Your task to perform on an android device: find snoozed emails in the gmail app Image 0: 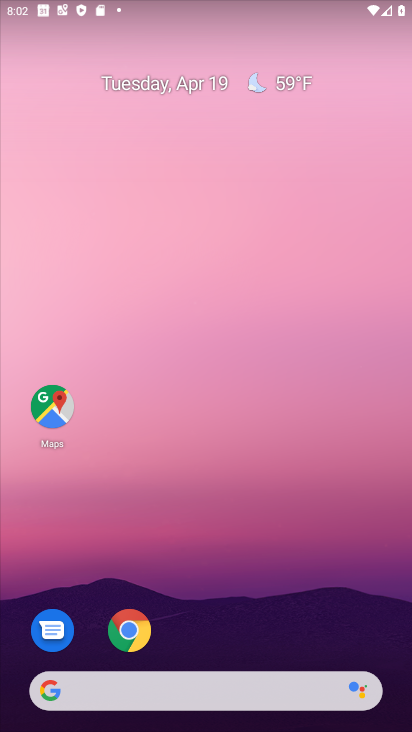
Step 0: drag from (188, 587) to (191, 50)
Your task to perform on an android device: find snoozed emails in the gmail app Image 1: 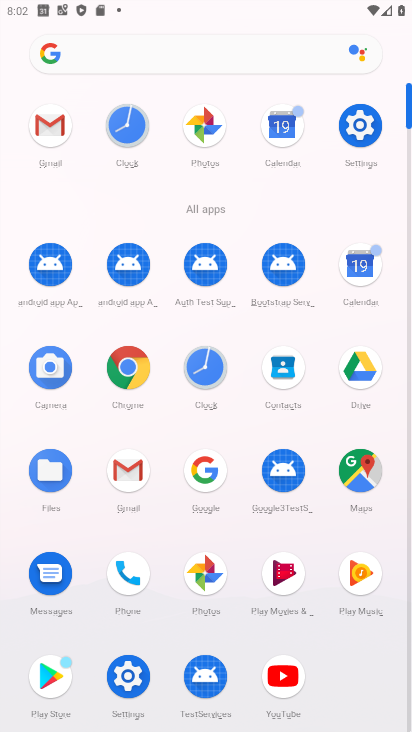
Step 1: click (47, 124)
Your task to perform on an android device: find snoozed emails in the gmail app Image 2: 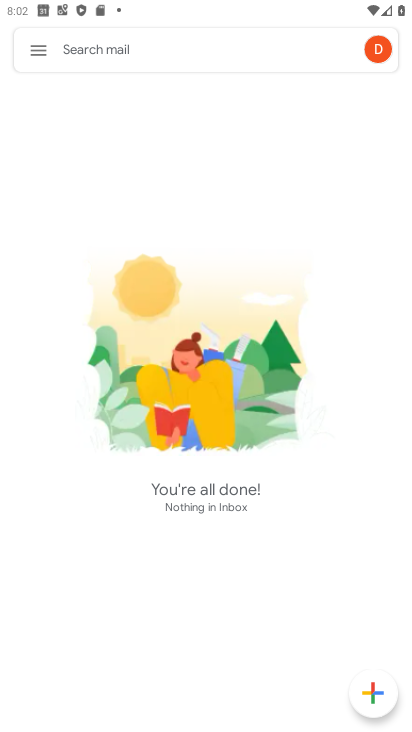
Step 2: click (38, 62)
Your task to perform on an android device: find snoozed emails in the gmail app Image 3: 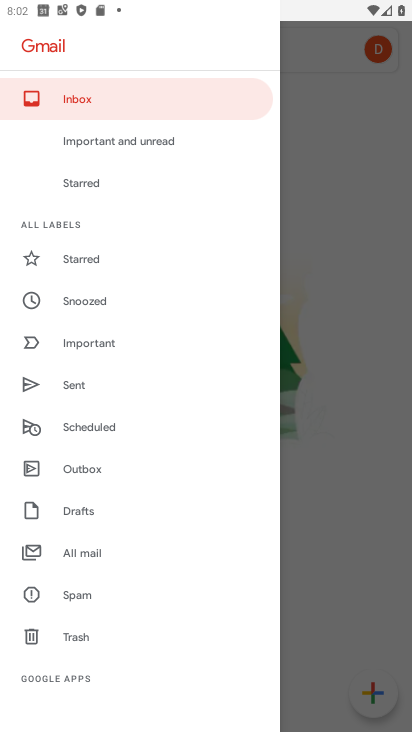
Step 3: click (113, 300)
Your task to perform on an android device: find snoozed emails in the gmail app Image 4: 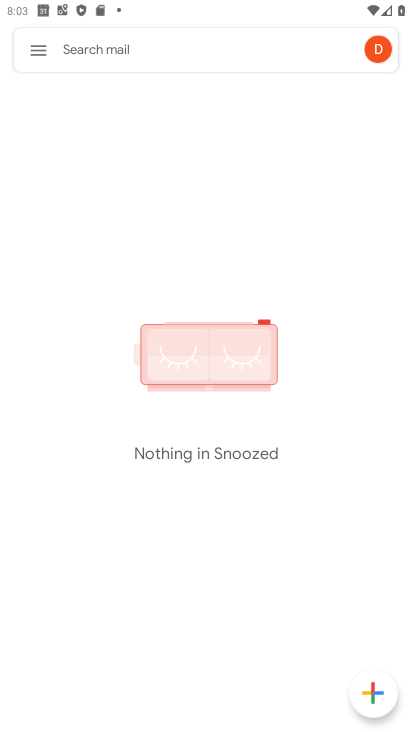
Step 4: task complete